Your task to perform on an android device: turn smart compose on in the gmail app Image 0: 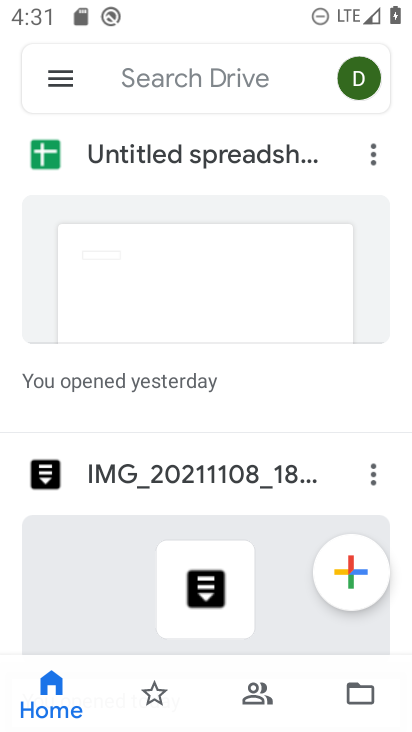
Step 0: press home button
Your task to perform on an android device: turn smart compose on in the gmail app Image 1: 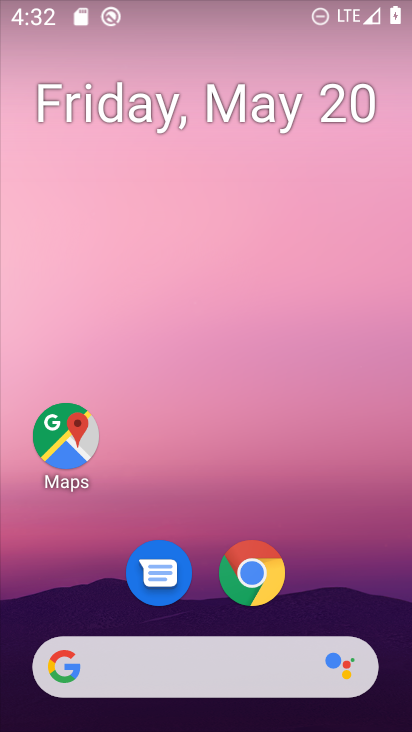
Step 1: drag from (366, 563) to (260, 115)
Your task to perform on an android device: turn smart compose on in the gmail app Image 2: 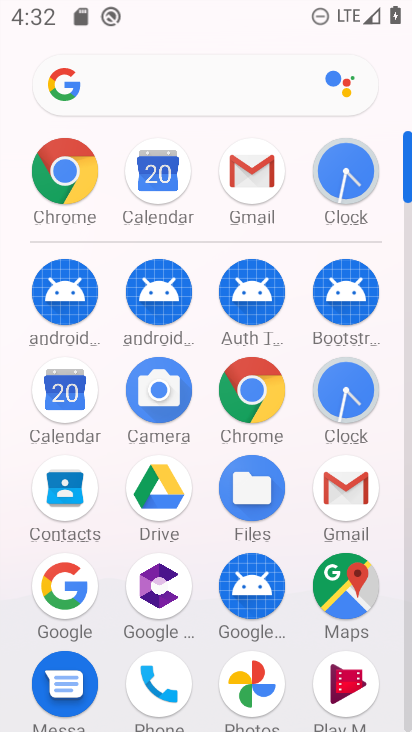
Step 2: click (251, 160)
Your task to perform on an android device: turn smart compose on in the gmail app Image 3: 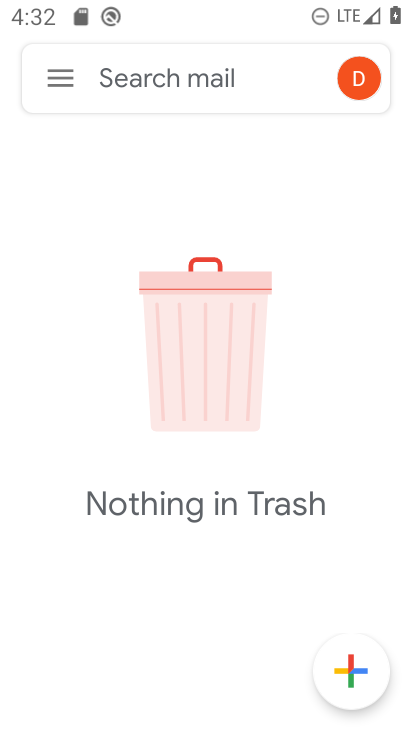
Step 3: click (62, 70)
Your task to perform on an android device: turn smart compose on in the gmail app Image 4: 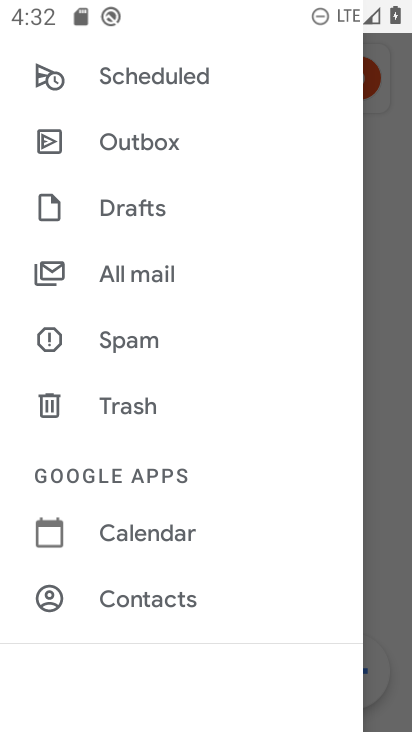
Step 4: drag from (230, 589) to (184, 204)
Your task to perform on an android device: turn smart compose on in the gmail app Image 5: 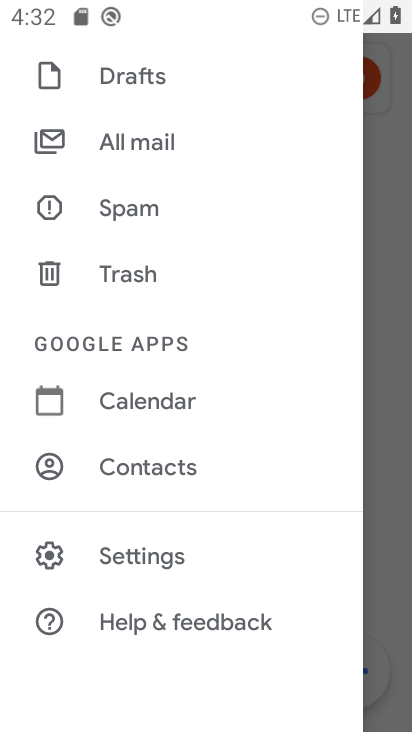
Step 5: click (181, 539)
Your task to perform on an android device: turn smart compose on in the gmail app Image 6: 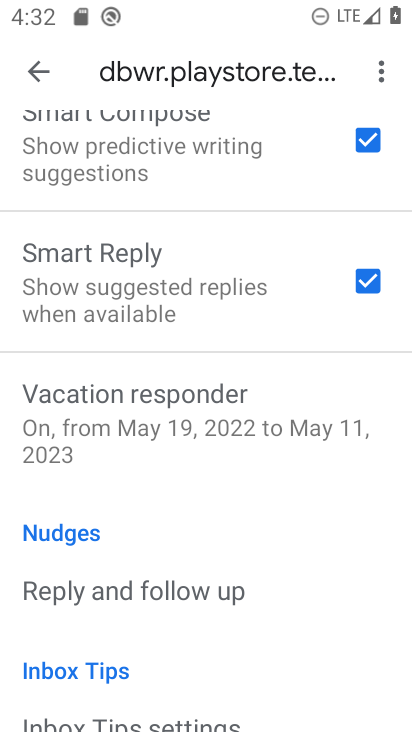
Step 6: task complete